Your task to perform on an android device: Open the calendar and show me this week's events? Image 0: 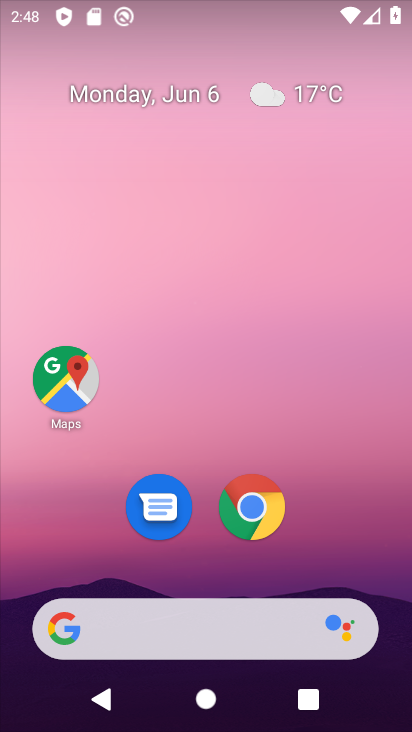
Step 0: press home button
Your task to perform on an android device: Open the calendar and show me this week's events? Image 1: 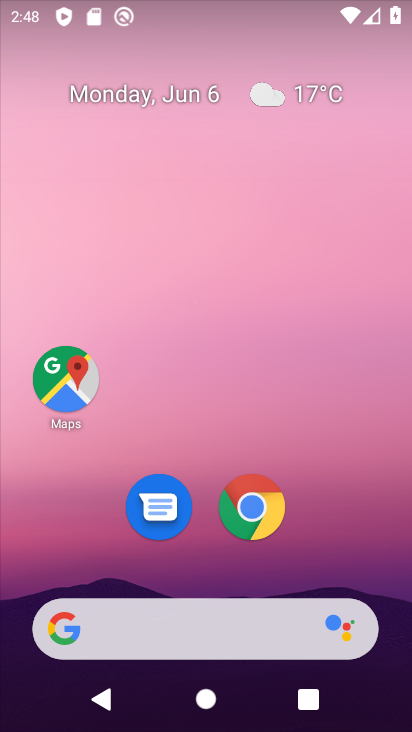
Step 1: drag from (310, 450) to (278, 136)
Your task to perform on an android device: Open the calendar and show me this week's events? Image 2: 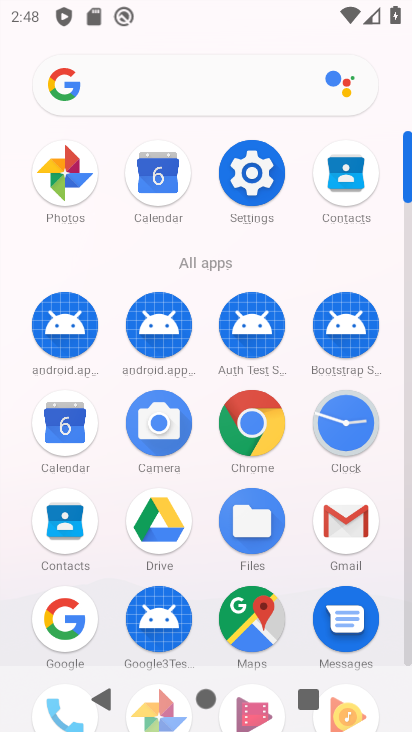
Step 2: click (141, 181)
Your task to perform on an android device: Open the calendar and show me this week's events? Image 3: 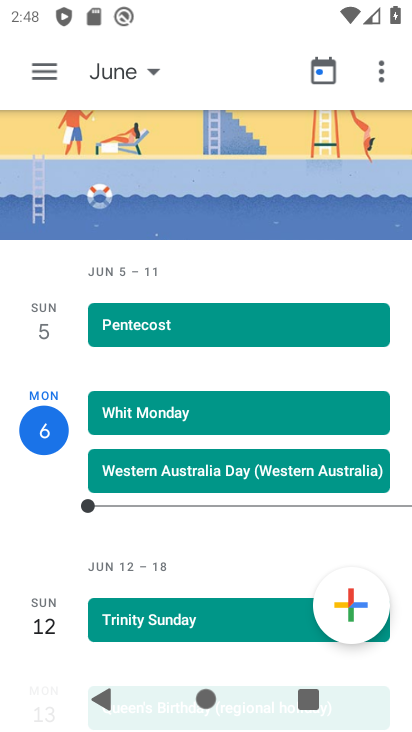
Step 3: click (46, 72)
Your task to perform on an android device: Open the calendar and show me this week's events? Image 4: 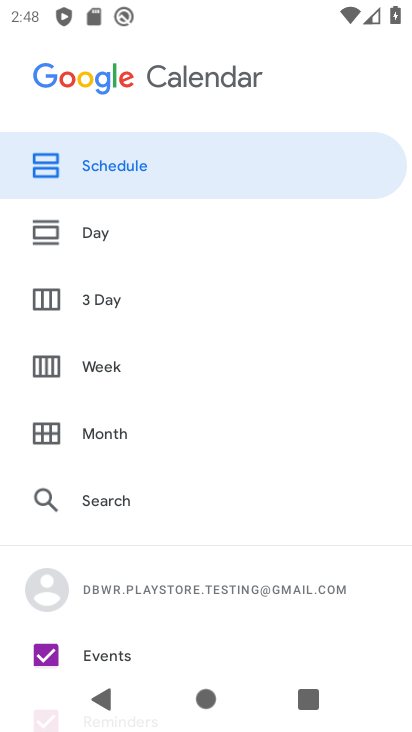
Step 4: click (55, 229)
Your task to perform on an android device: Open the calendar and show me this week's events? Image 5: 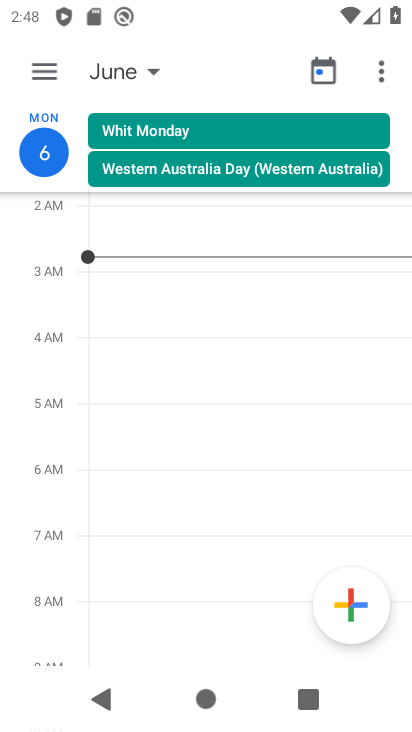
Step 5: click (48, 69)
Your task to perform on an android device: Open the calendar and show me this week's events? Image 6: 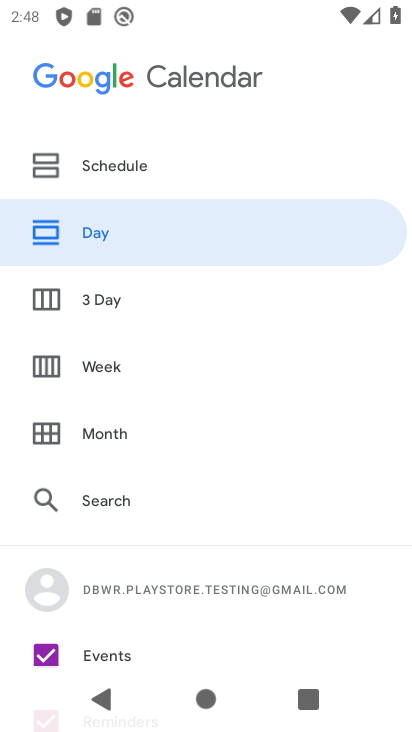
Step 6: click (101, 161)
Your task to perform on an android device: Open the calendar and show me this week's events? Image 7: 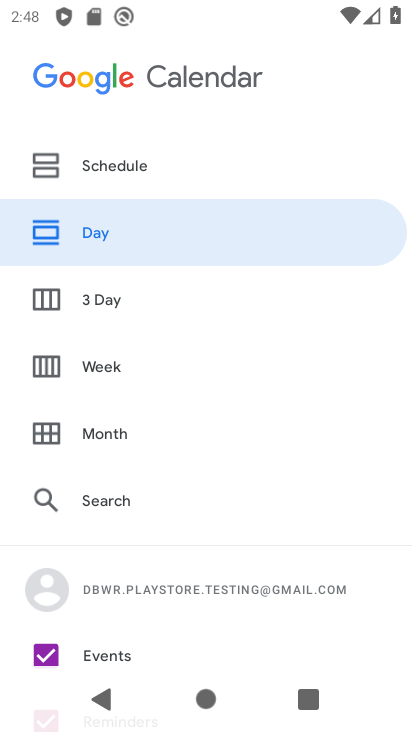
Step 7: click (112, 164)
Your task to perform on an android device: Open the calendar and show me this week's events? Image 8: 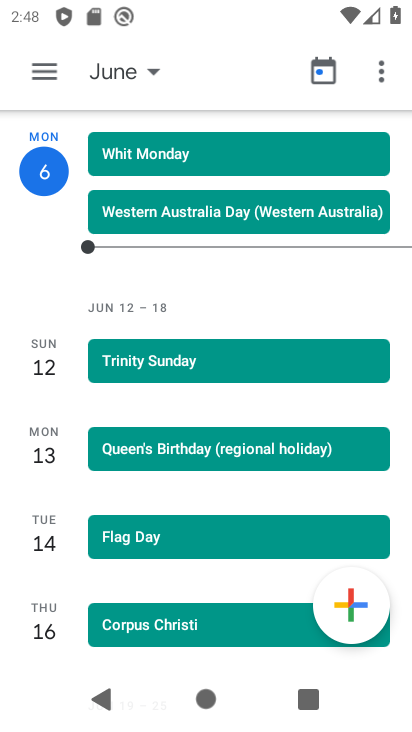
Step 8: task complete